Your task to perform on an android device: set the timer Image 0: 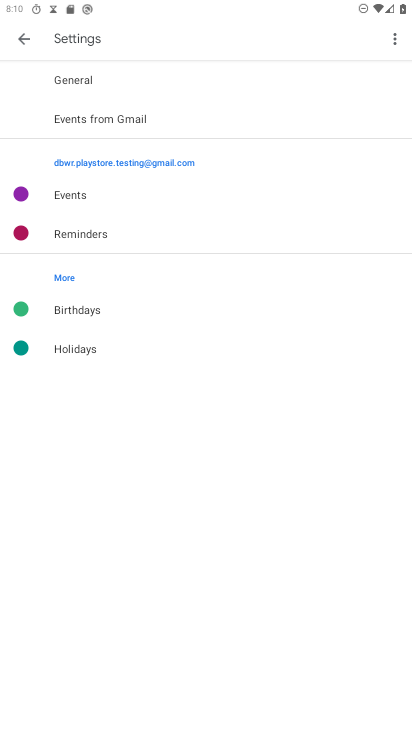
Step 0: press home button
Your task to perform on an android device: set the timer Image 1: 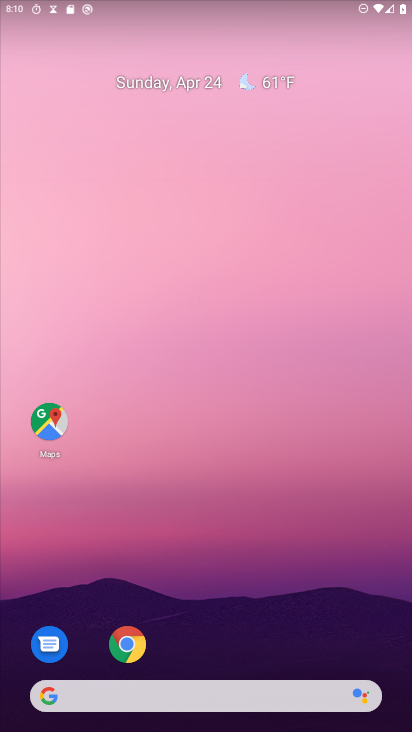
Step 1: drag from (217, 681) to (161, 160)
Your task to perform on an android device: set the timer Image 2: 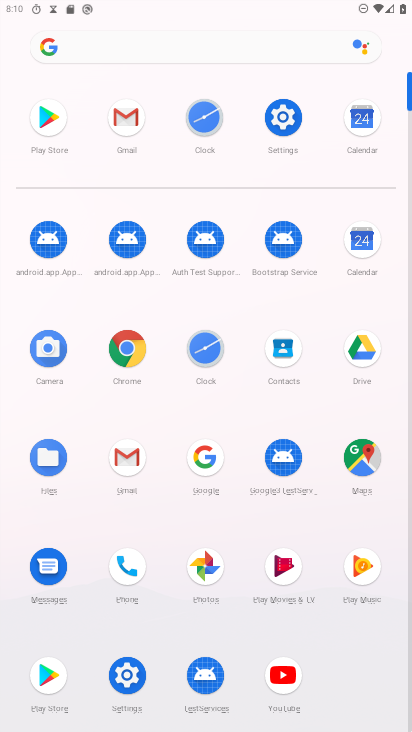
Step 2: click (212, 131)
Your task to perform on an android device: set the timer Image 3: 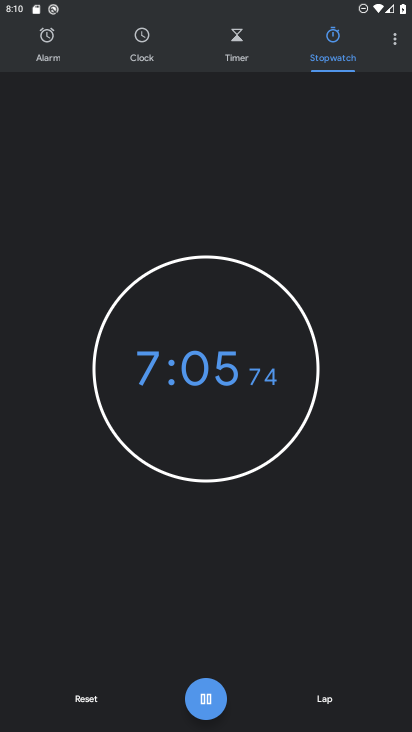
Step 3: click (222, 62)
Your task to perform on an android device: set the timer Image 4: 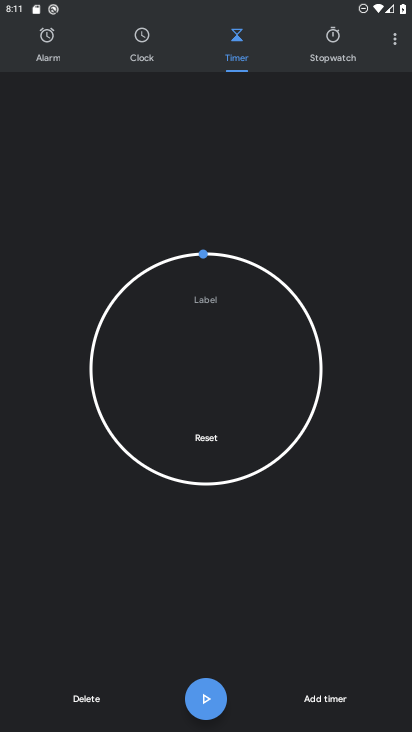
Step 4: click (207, 440)
Your task to perform on an android device: set the timer Image 5: 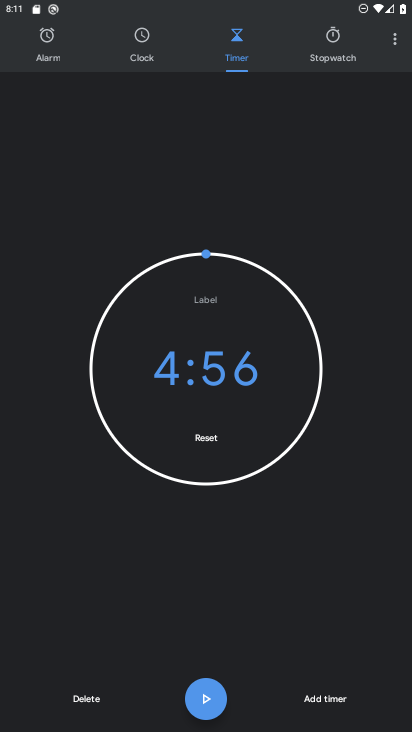
Step 5: click (322, 700)
Your task to perform on an android device: set the timer Image 6: 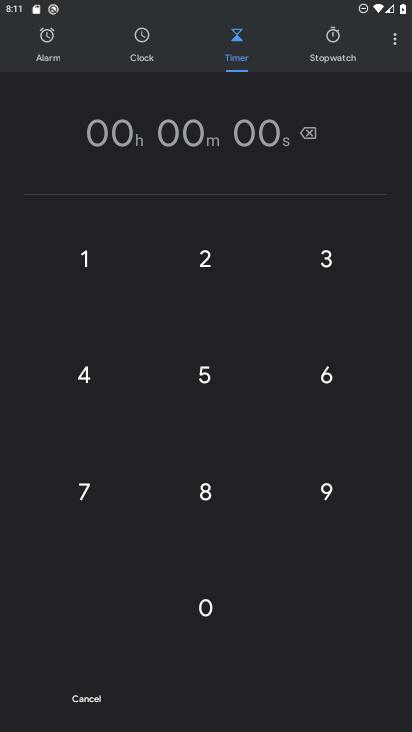
Step 6: click (93, 395)
Your task to perform on an android device: set the timer Image 7: 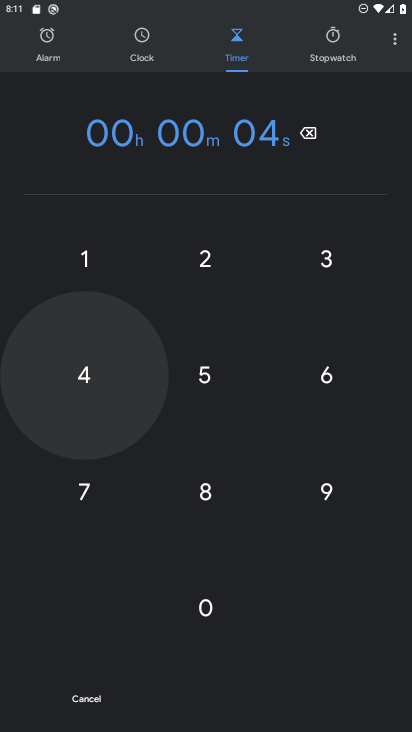
Step 7: click (240, 364)
Your task to perform on an android device: set the timer Image 8: 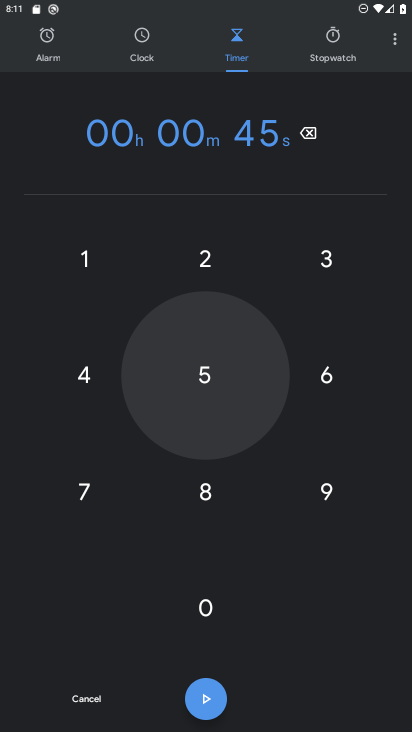
Step 8: click (172, 229)
Your task to perform on an android device: set the timer Image 9: 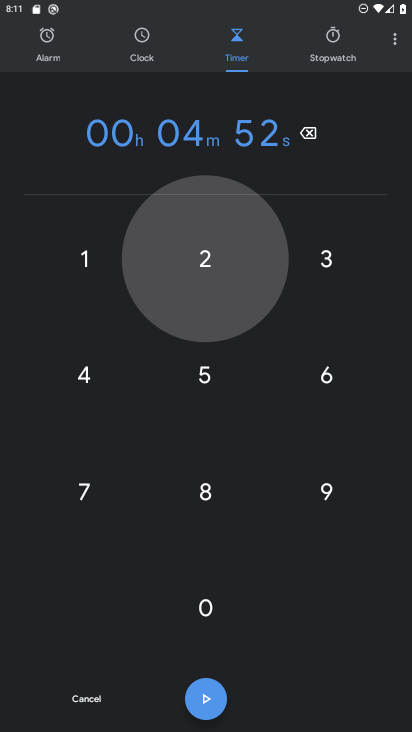
Step 9: click (87, 241)
Your task to perform on an android device: set the timer Image 10: 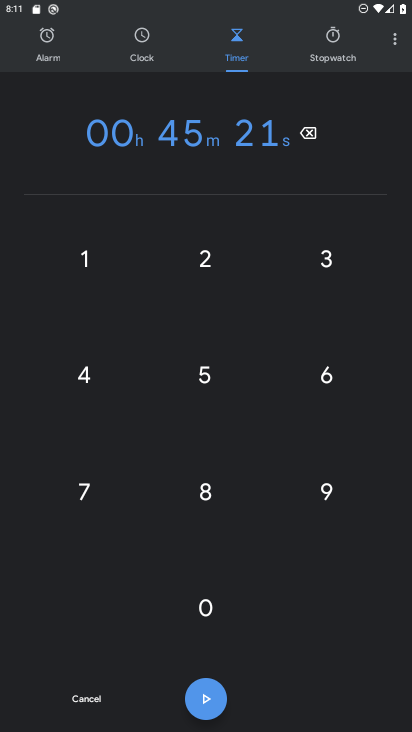
Step 10: click (201, 682)
Your task to perform on an android device: set the timer Image 11: 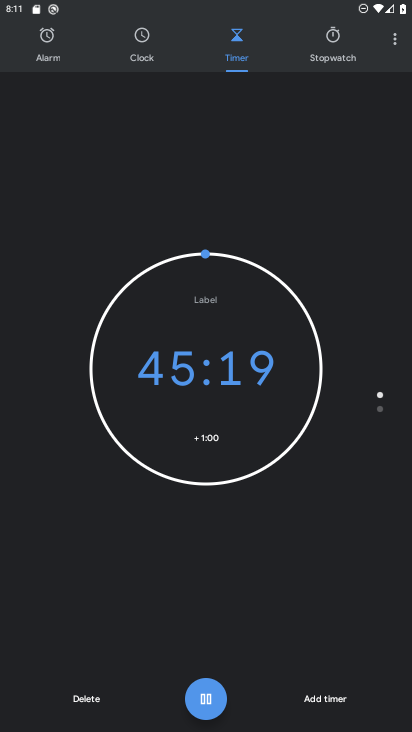
Step 11: task complete